Your task to perform on an android device: turn off notifications settings in the gmail app Image 0: 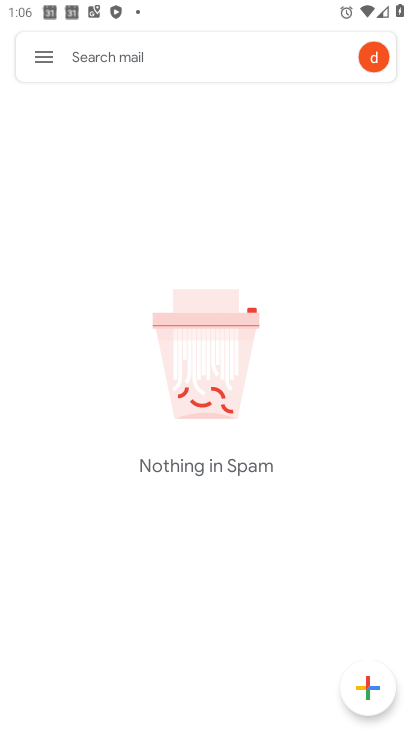
Step 0: press home button
Your task to perform on an android device: turn off notifications settings in the gmail app Image 1: 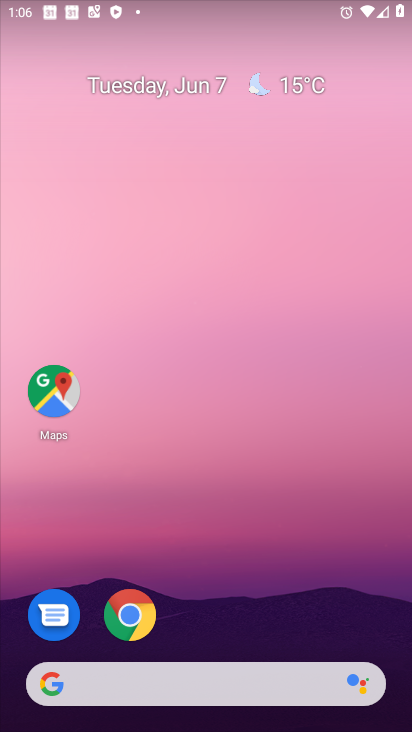
Step 1: drag from (210, 640) to (175, 171)
Your task to perform on an android device: turn off notifications settings in the gmail app Image 2: 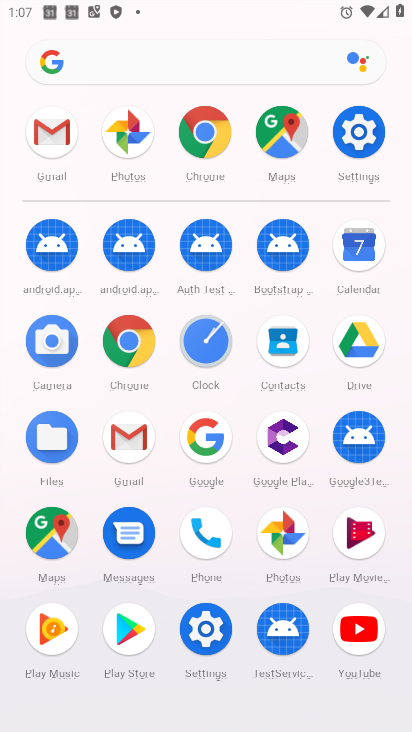
Step 2: click (129, 456)
Your task to perform on an android device: turn off notifications settings in the gmail app Image 3: 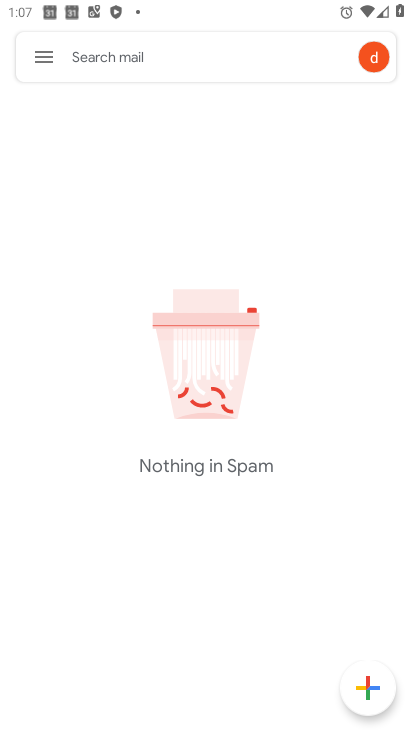
Step 3: click (39, 49)
Your task to perform on an android device: turn off notifications settings in the gmail app Image 4: 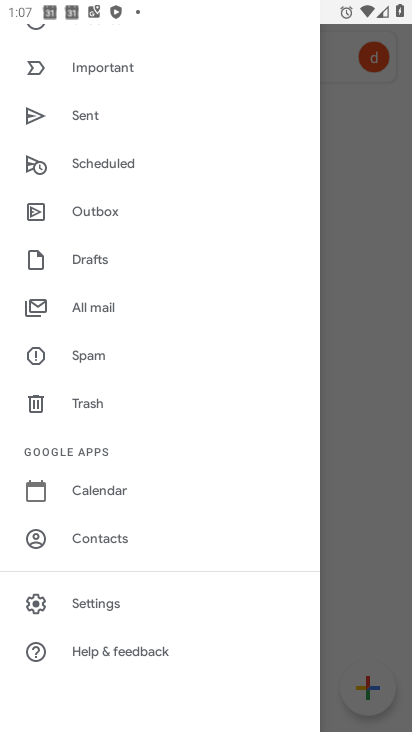
Step 4: click (118, 614)
Your task to perform on an android device: turn off notifications settings in the gmail app Image 5: 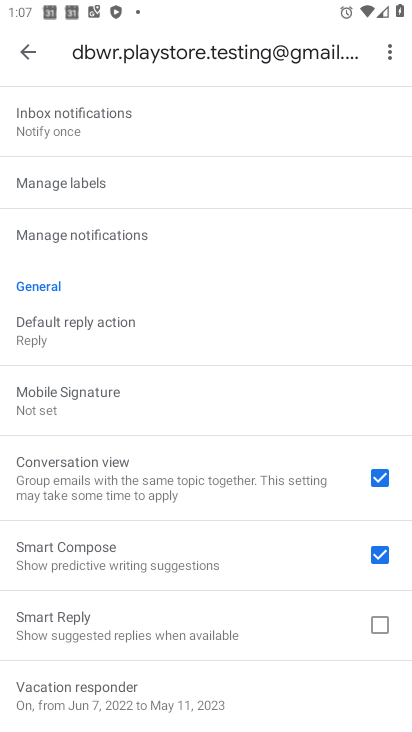
Step 5: click (76, 234)
Your task to perform on an android device: turn off notifications settings in the gmail app Image 6: 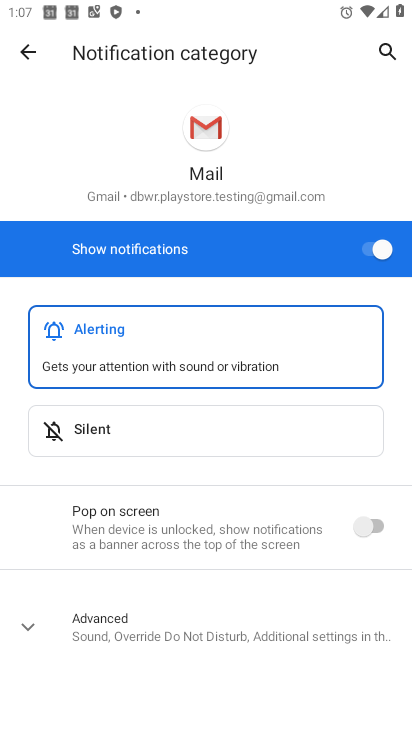
Step 6: click (370, 266)
Your task to perform on an android device: turn off notifications settings in the gmail app Image 7: 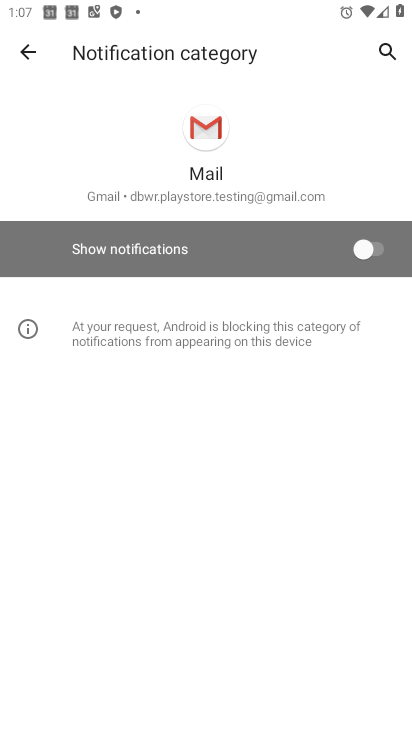
Step 7: task complete